Your task to perform on an android device: Open display settings Image 0: 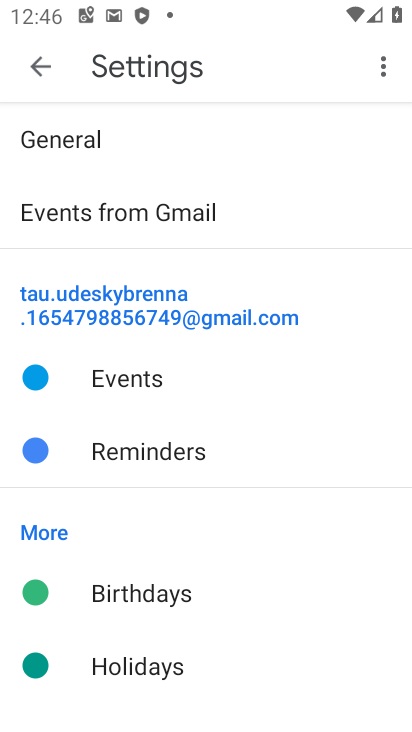
Step 0: press home button
Your task to perform on an android device: Open display settings Image 1: 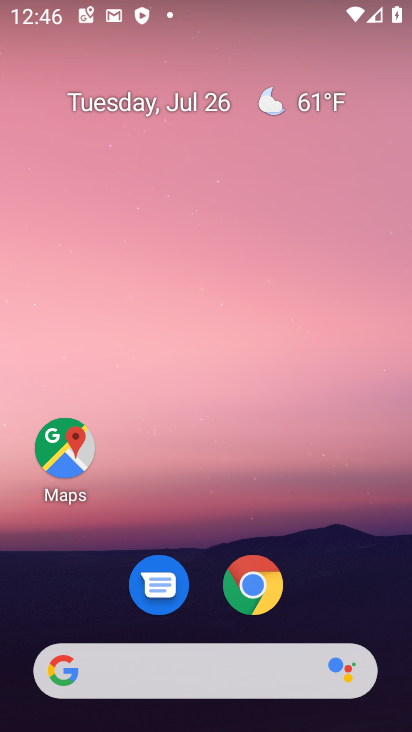
Step 1: drag from (186, 666) to (244, 148)
Your task to perform on an android device: Open display settings Image 2: 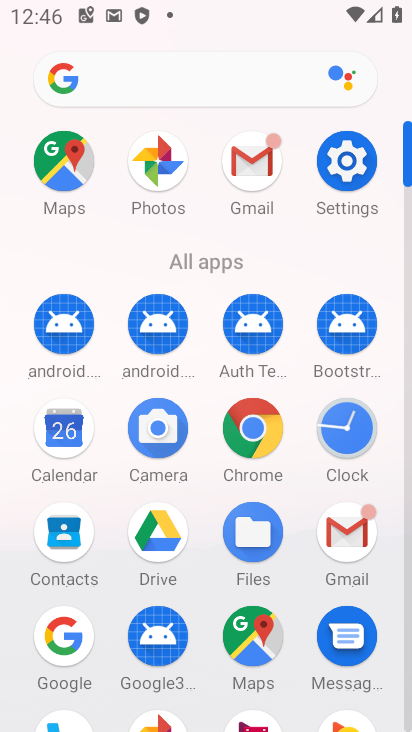
Step 2: click (350, 160)
Your task to perform on an android device: Open display settings Image 3: 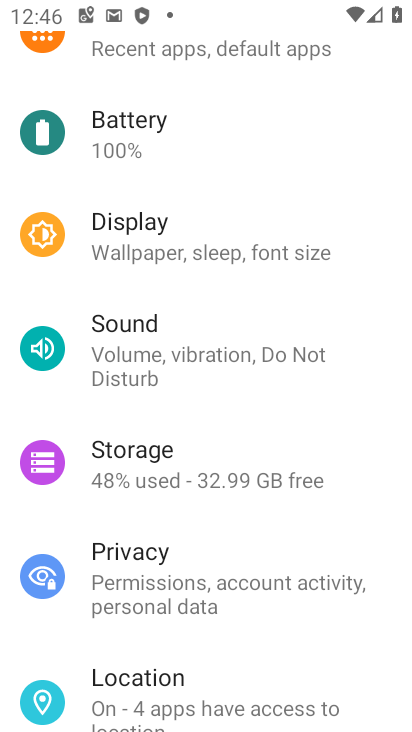
Step 3: click (170, 243)
Your task to perform on an android device: Open display settings Image 4: 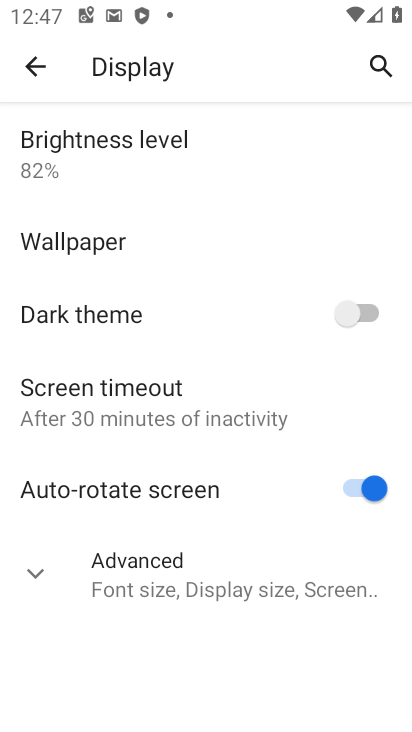
Step 4: task complete